Your task to perform on an android device: Open Youtube and go to the subscriptions tab Image 0: 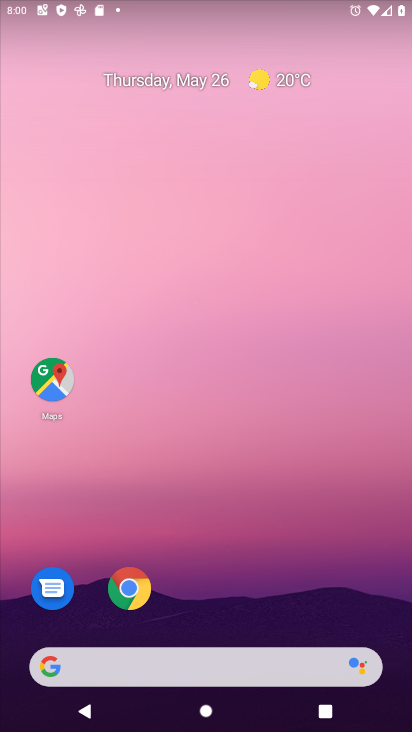
Step 0: drag from (387, 628) to (258, 90)
Your task to perform on an android device: Open Youtube and go to the subscriptions tab Image 1: 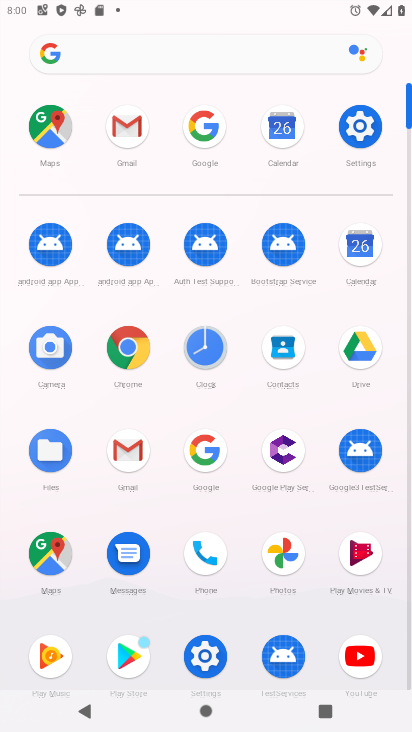
Step 1: click (374, 673)
Your task to perform on an android device: Open Youtube and go to the subscriptions tab Image 2: 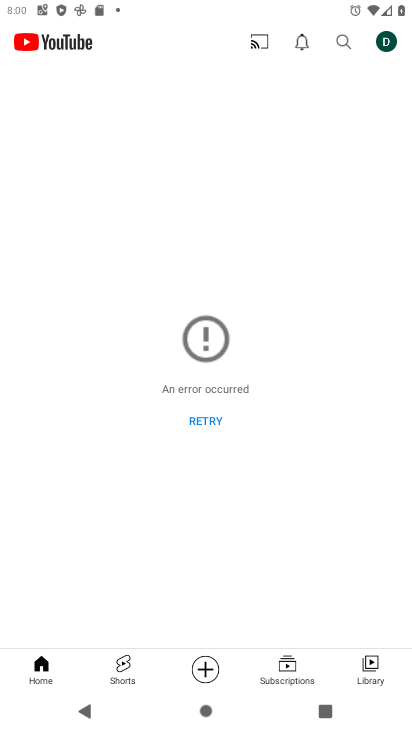
Step 2: click (284, 688)
Your task to perform on an android device: Open Youtube and go to the subscriptions tab Image 3: 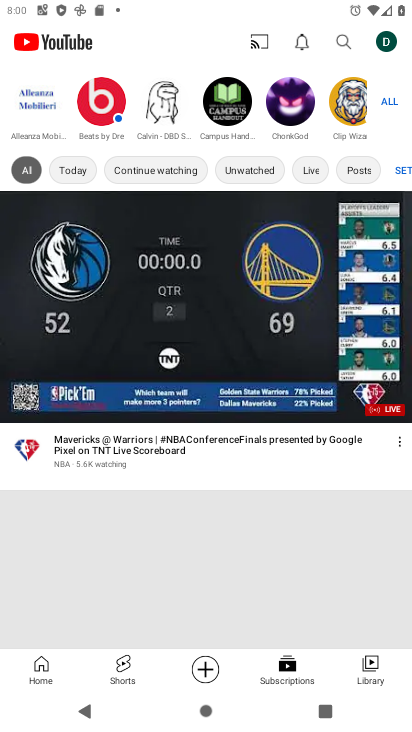
Step 3: task complete